Your task to perform on an android device: Open CNN.com Image 0: 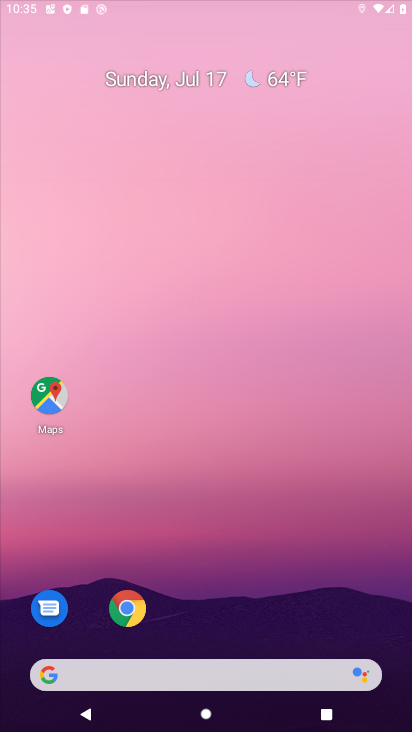
Step 0: click (97, 671)
Your task to perform on an android device: Open CNN.com Image 1: 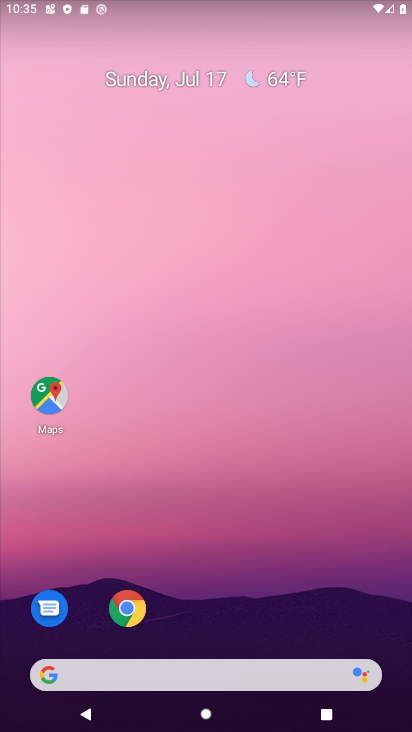
Step 1: click (85, 674)
Your task to perform on an android device: Open CNN.com Image 2: 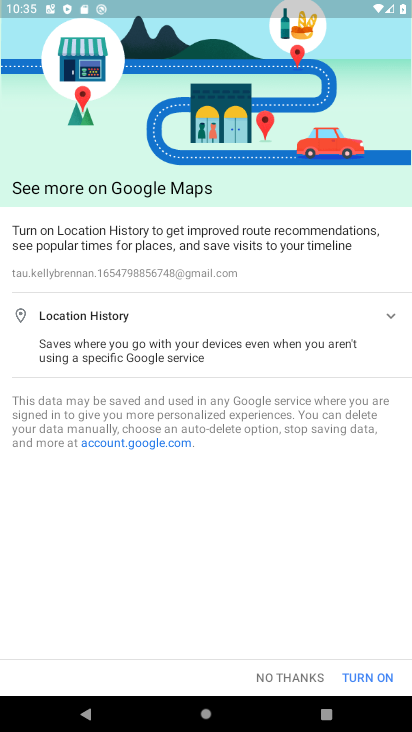
Step 2: press home button
Your task to perform on an android device: Open CNN.com Image 3: 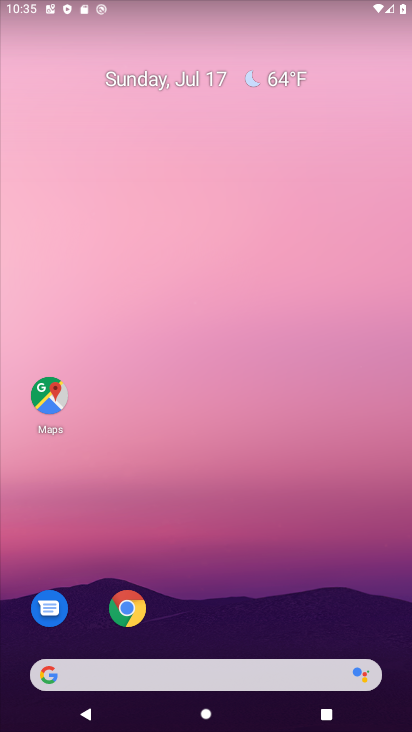
Step 3: click (91, 654)
Your task to perform on an android device: Open CNN.com Image 4: 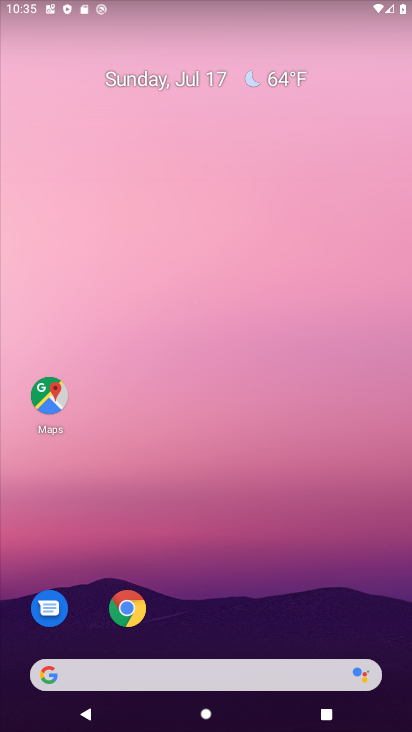
Step 4: click (91, 670)
Your task to perform on an android device: Open CNN.com Image 5: 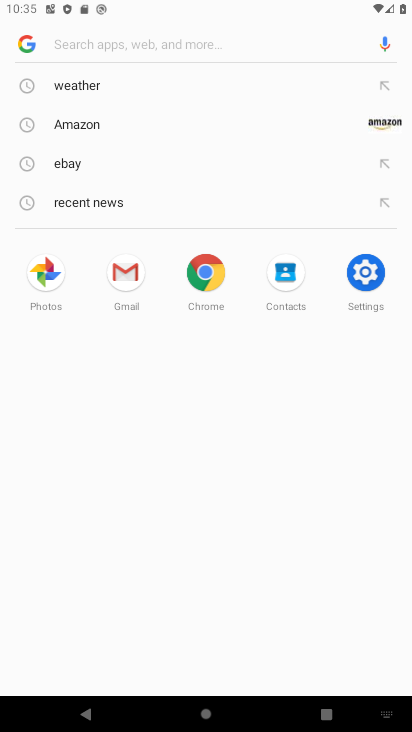
Step 5: type "CNN.com"
Your task to perform on an android device: Open CNN.com Image 6: 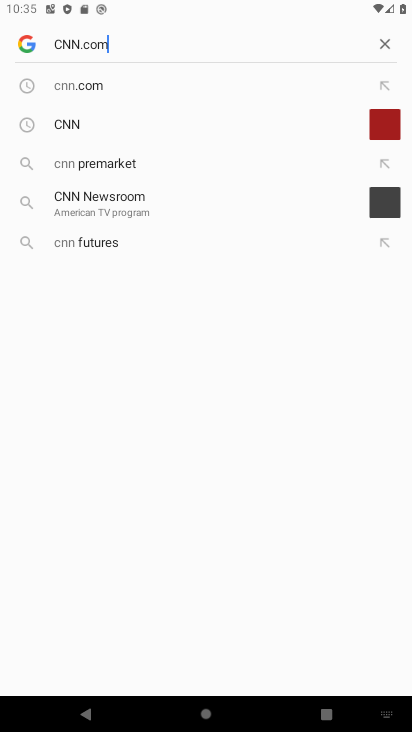
Step 6: type ""
Your task to perform on an android device: Open CNN.com Image 7: 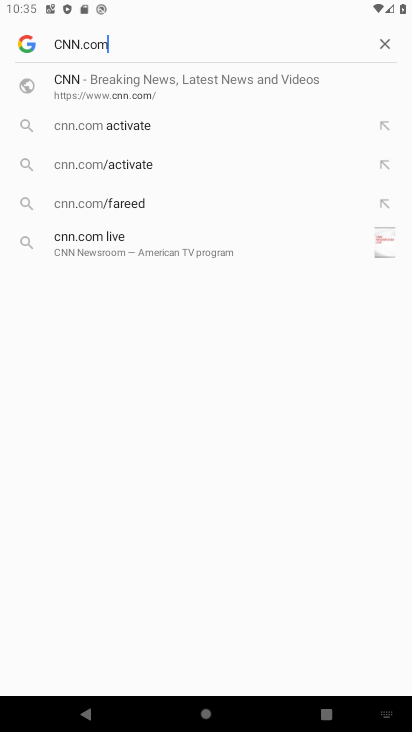
Step 7: click (68, 87)
Your task to perform on an android device: Open CNN.com Image 8: 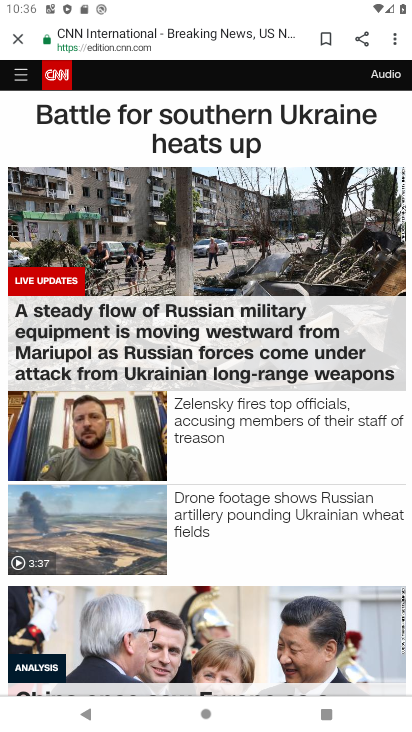
Step 8: task complete